Your task to perform on an android device: empty trash in the gmail app Image 0: 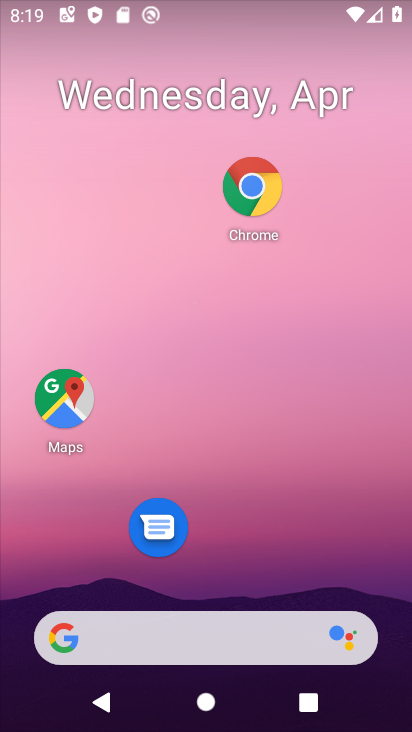
Step 0: drag from (292, 565) to (293, 117)
Your task to perform on an android device: empty trash in the gmail app Image 1: 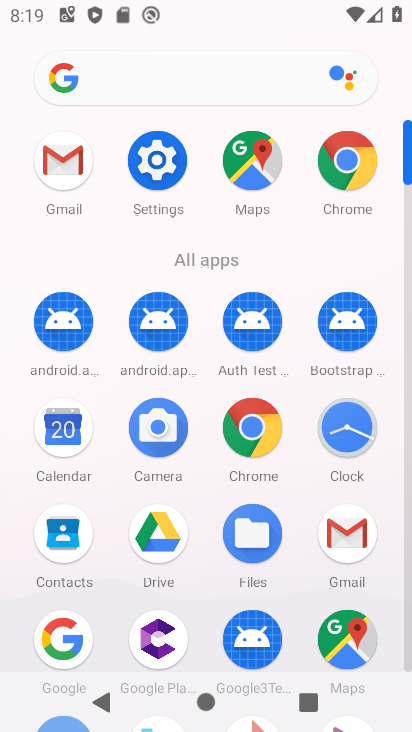
Step 1: click (63, 147)
Your task to perform on an android device: empty trash in the gmail app Image 2: 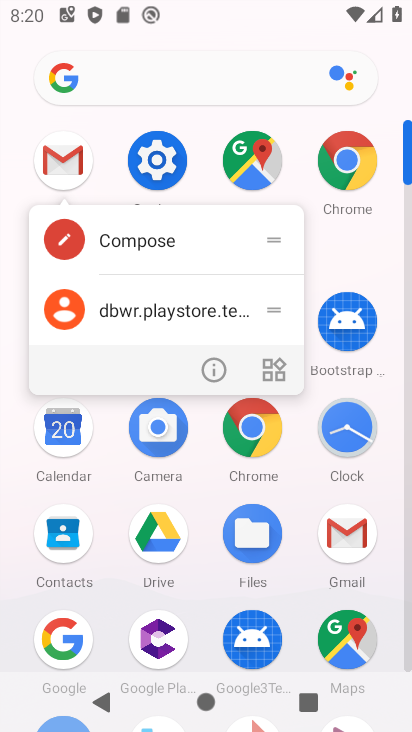
Step 2: click (63, 147)
Your task to perform on an android device: empty trash in the gmail app Image 3: 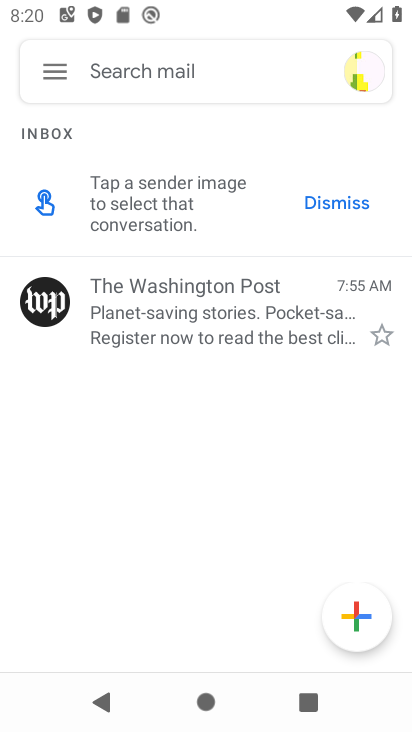
Step 3: click (59, 70)
Your task to perform on an android device: empty trash in the gmail app Image 4: 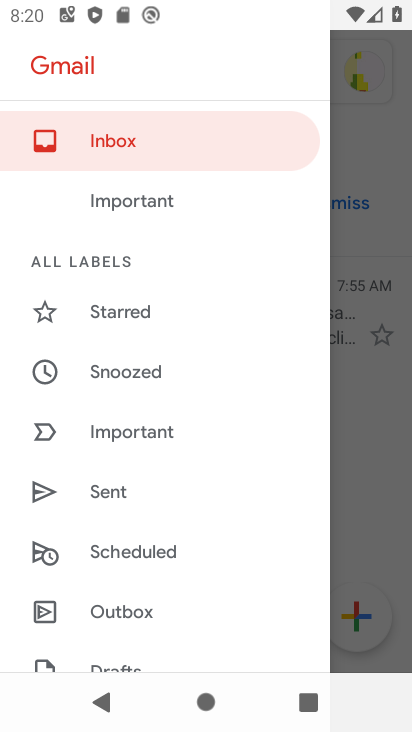
Step 4: drag from (84, 620) to (141, 192)
Your task to perform on an android device: empty trash in the gmail app Image 5: 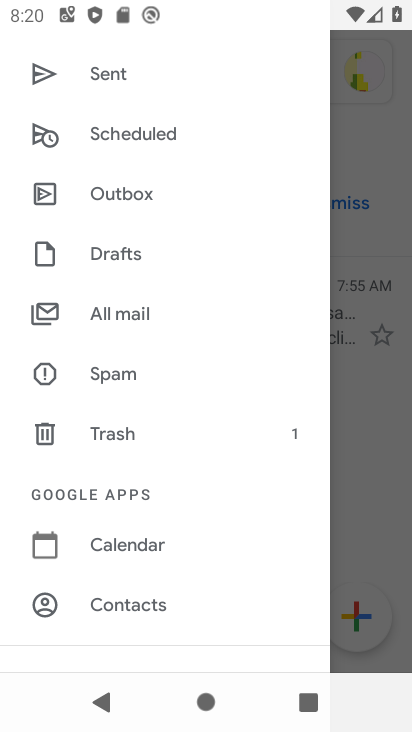
Step 5: click (126, 432)
Your task to perform on an android device: empty trash in the gmail app Image 6: 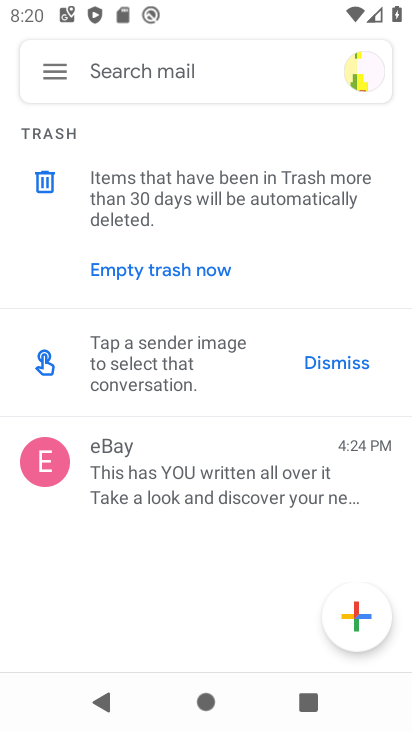
Step 6: click (57, 444)
Your task to perform on an android device: empty trash in the gmail app Image 7: 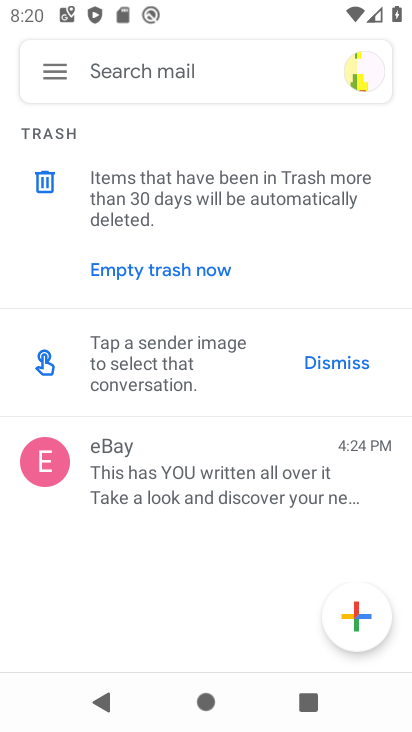
Step 7: click (56, 446)
Your task to perform on an android device: empty trash in the gmail app Image 8: 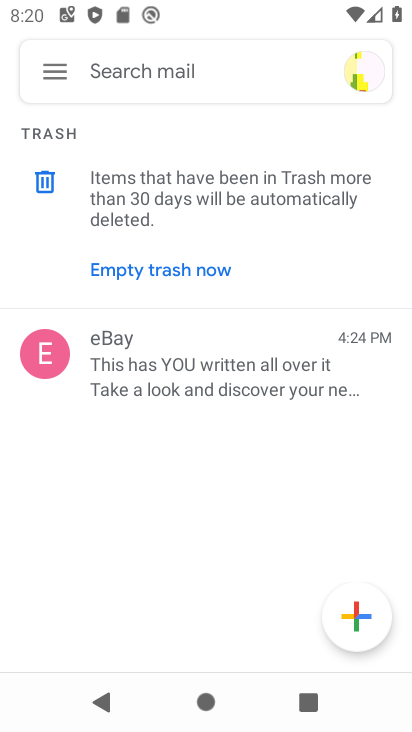
Step 8: click (36, 352)
Your task to perform on an android device: empty trash in the gmail app Image 9: 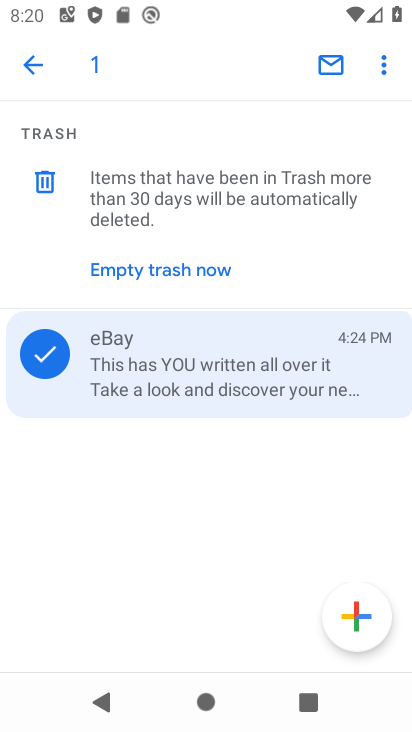
Step 9: click (46, 180)
Your task to perform on an android device: empty trash in the gmail app Image 10: 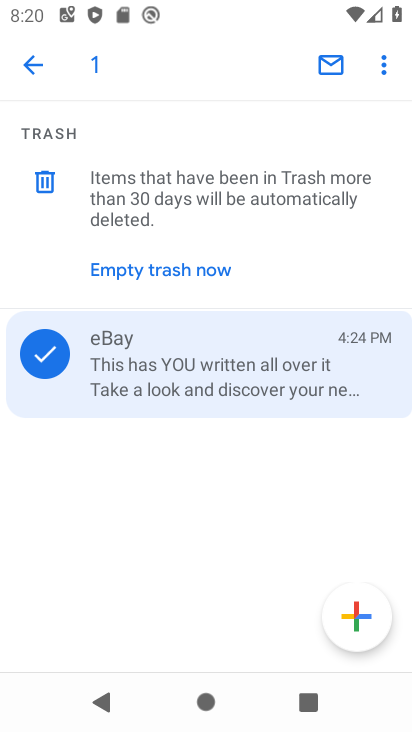
Step 10: click (46, 180)
Your task to perform on an android device: empty trash in the gmail app Image 11: 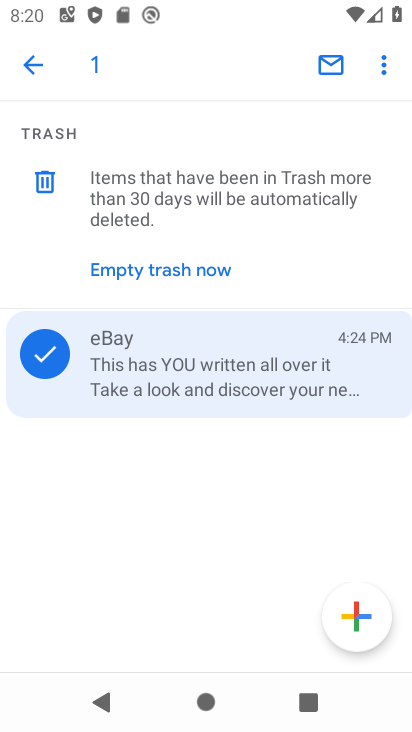
Step 11: click (45, 181)
Your task to perform on an android device: empty trash in the gmail app Image 12: 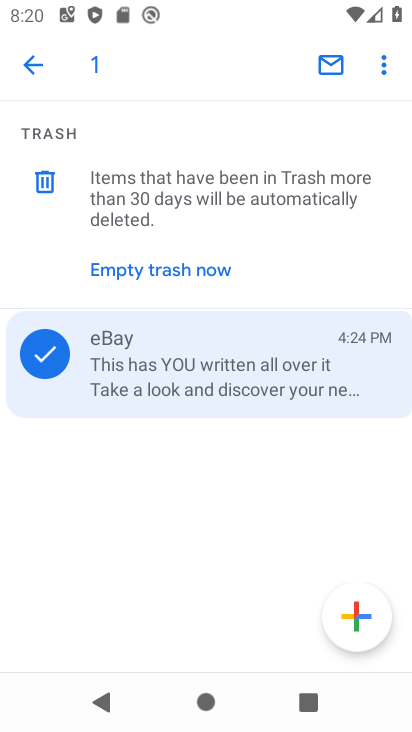
Step 12: click (42, 184)
Your task to perform on an android device: empty trash in the gmail app Image 13: 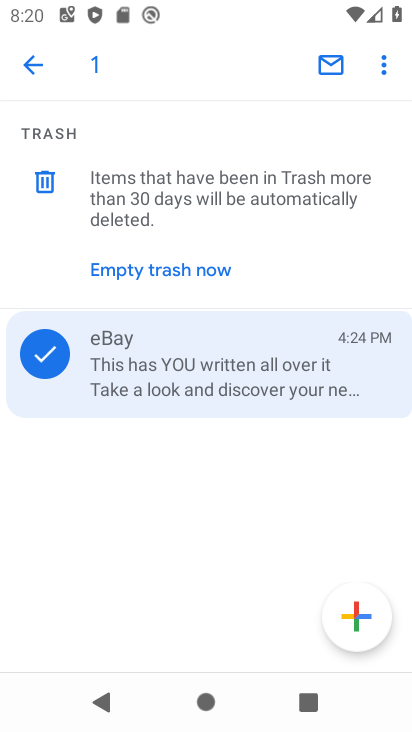
Step 13: click (388, 64)
Your task to perform on an android device: empty trash in the gmail app Image 14: 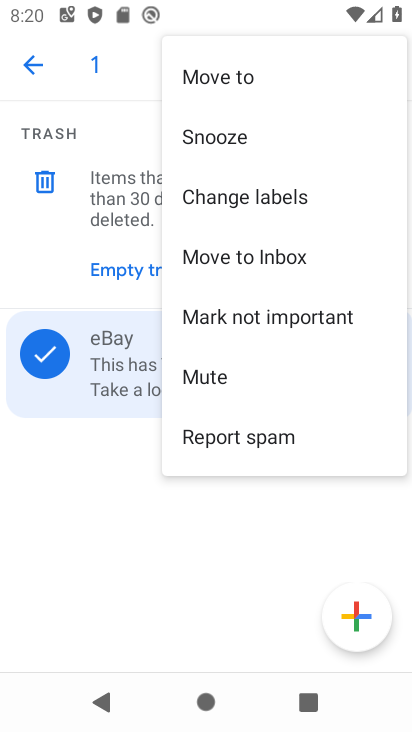
Step 14: click (44, 280)
Your task to perform on an android device: empty trash in the gmail app Image 15: 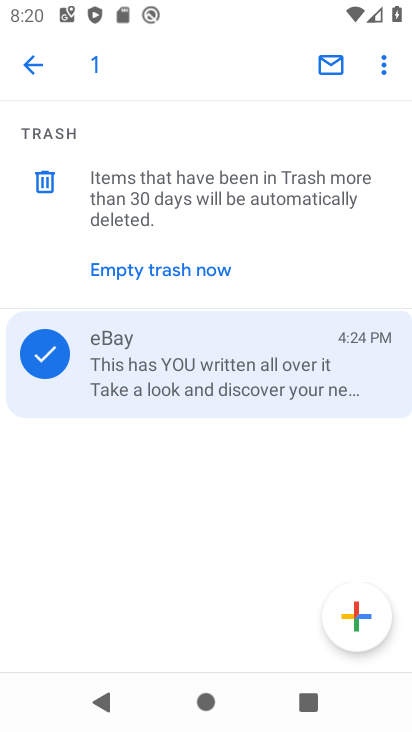
Step 15: click (128, 268)
Your task to perform on an android device: empty trash in the gmail app Image 16: 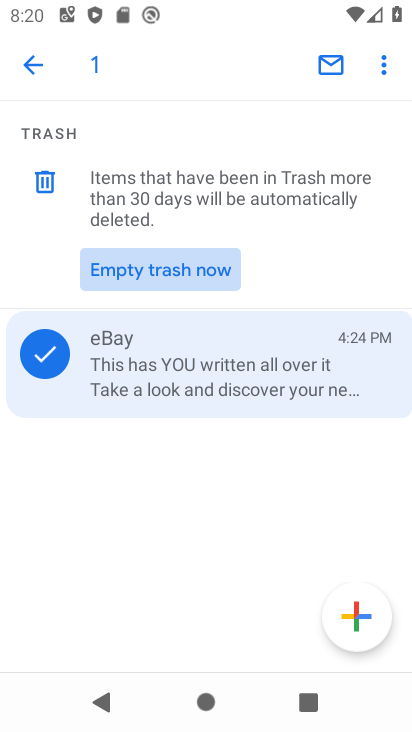
Step 16: click (123, 264)
Your task to perform on an android device: empty trash in the gmail app Image 17: 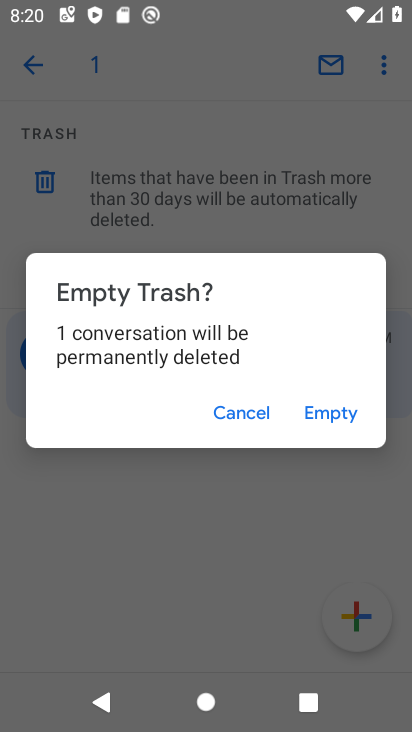
Step 17: click (353, 405)
Your task to perform on an android device: empty trash in the gmail app Image 18: 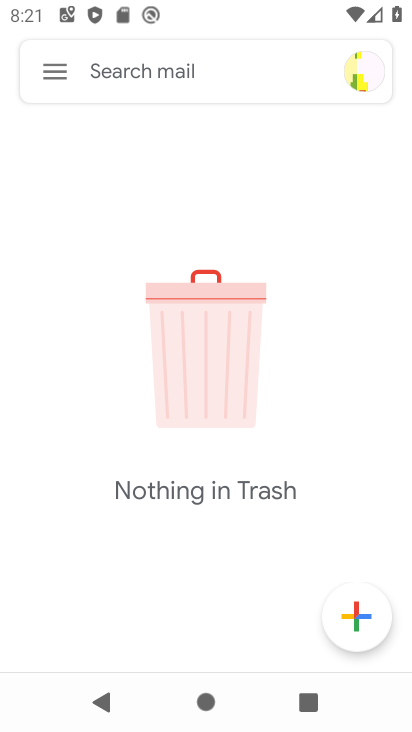
Step 18: task complete